Your task to perform on an android device: check battery use Image 0: 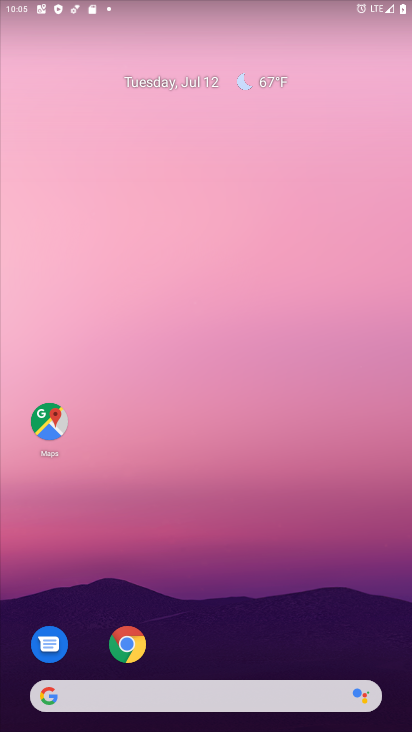
Step 0: drag from (202, 592) to (207, 179)
Your task to perform on an android device: check battery use Image 1: 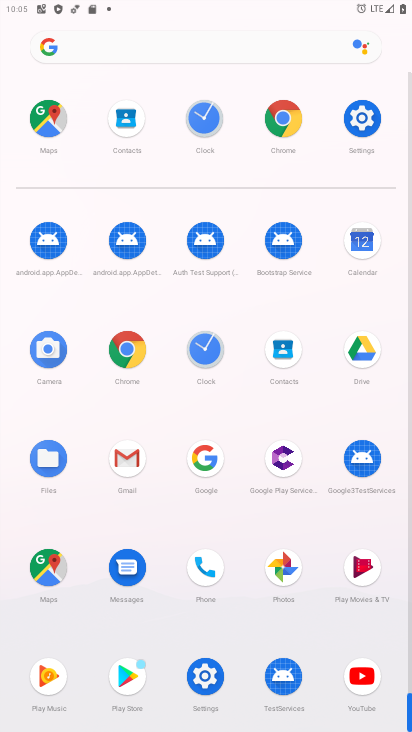
Step 1: click (200, 687)
Your task to perform on an android device: check battery use Image 2: 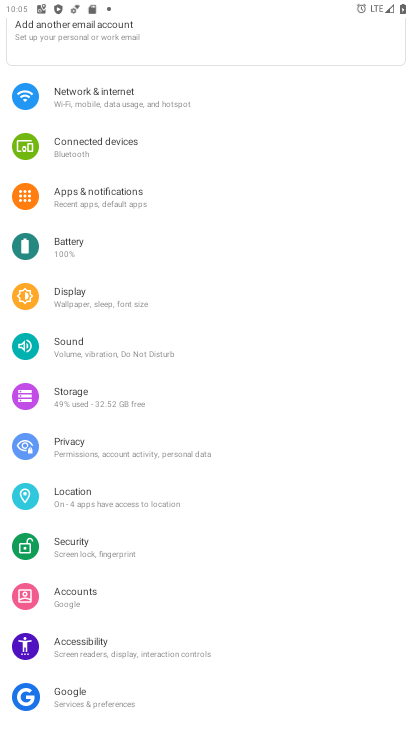
Step 2: click (107, 250)
Your task to perform on an android device: check battery use Image 3: 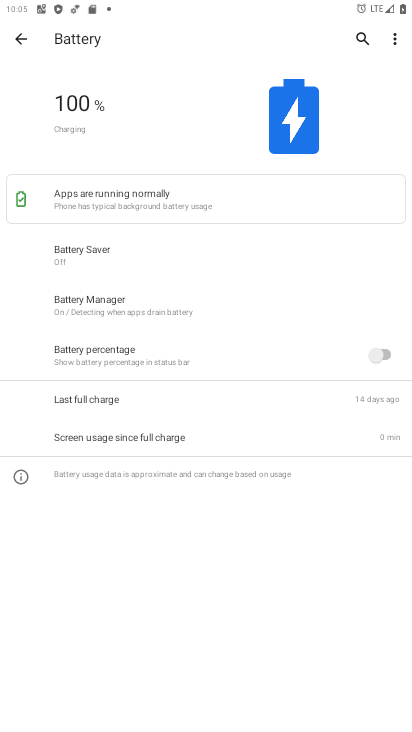
Step 3: drag from (217, 432) to (217, 293)
Your task to perform on an android device: check battery use Image 4: 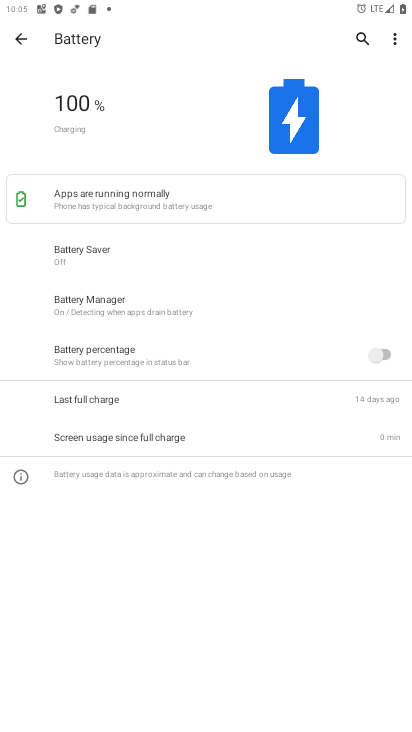
Step 4: click (393, 45)
Your task to perform on an android device: check battery use Image 5: 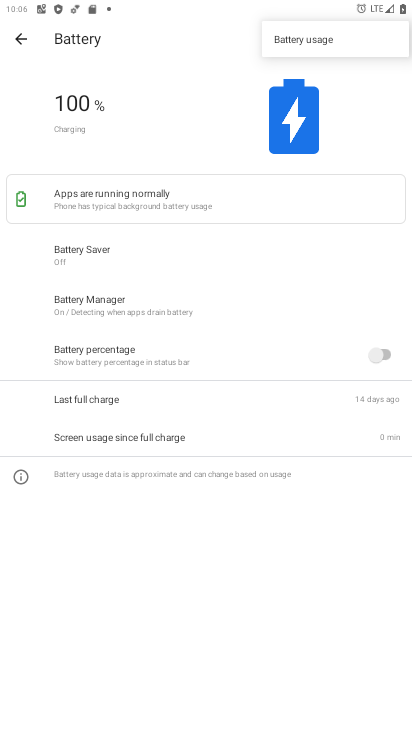
Step 5: click (310, 42)
Your task to perform on an android device: check battery use Image 6: 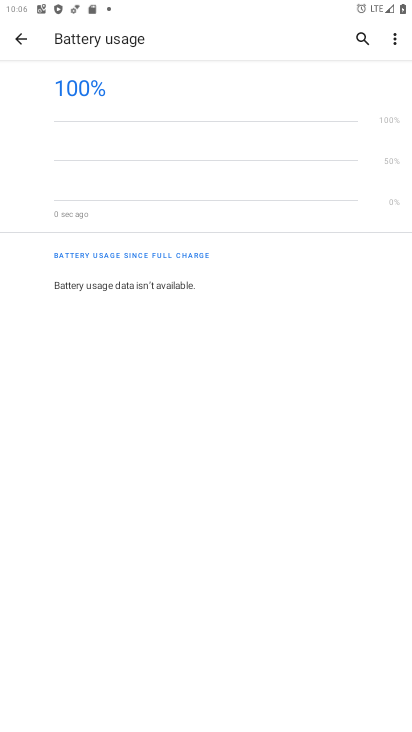
Step 6: task complete